Your task to perform on an android device: see tabs open on other devices in the chrome app Image 0: 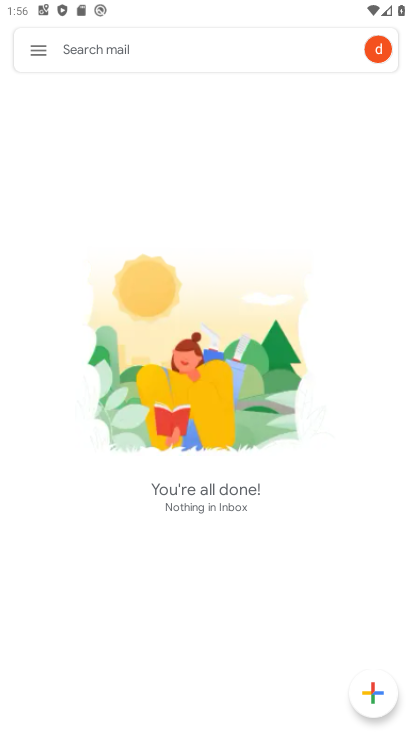
Step 0: press home button
Your task to perform on an android device: see tabs open on other devices in the chrome app Image 1: 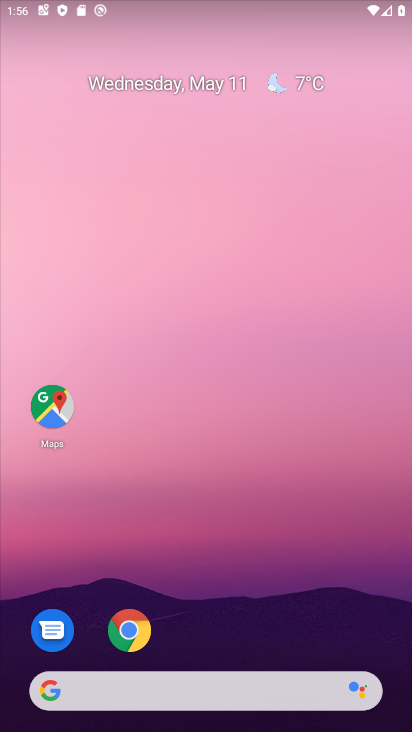
Step 1: drag from (391, 628) to (279, 74)
Your task to perform on an android device: see tabs open on other devices in the chrome app Image 2: 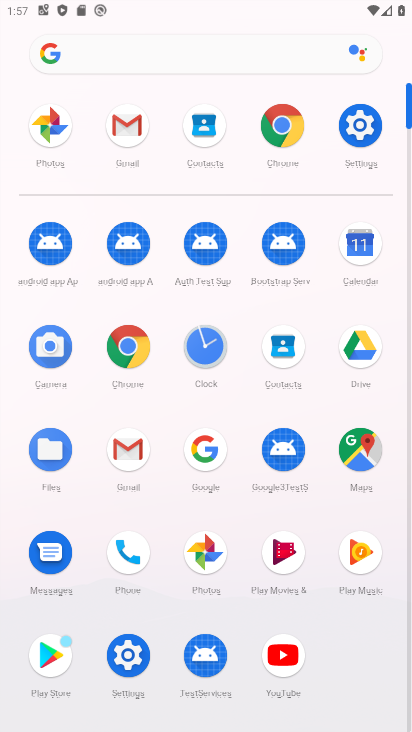
Step 2: click (124, 362)
Your task to perform on an android device: see tabs open on other devices in the chrome app Image 3: 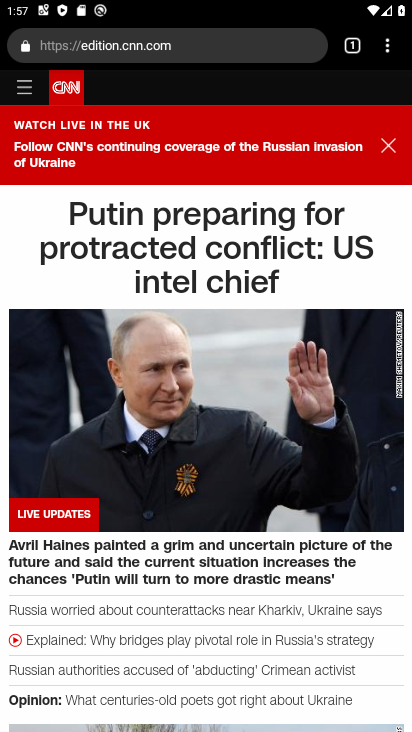
Step 3: task complete